Your task to perform on an android device: turn off improve location accuracy Image 0: 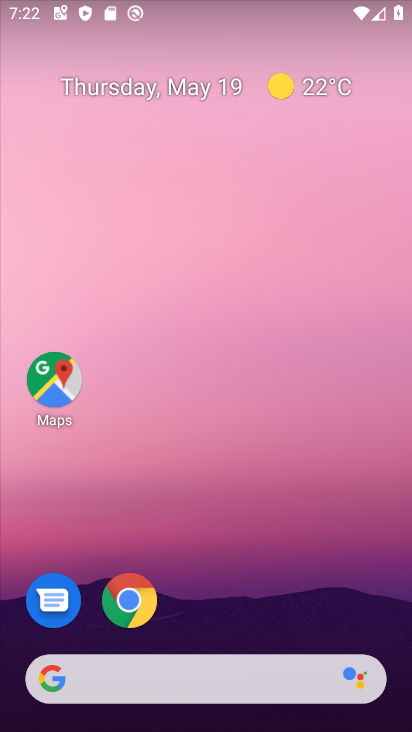
Step 0: drag from (321, 568) to (301, 214)
Your task to perform on an android device: turn off improve location accuracy Image 1: 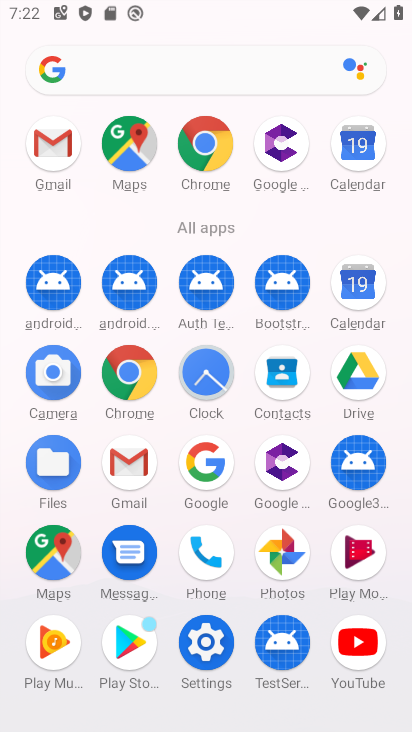
Step 1: click (172, 646)
Your task to perform on an android device: turn off improve location accuracy Image 2: 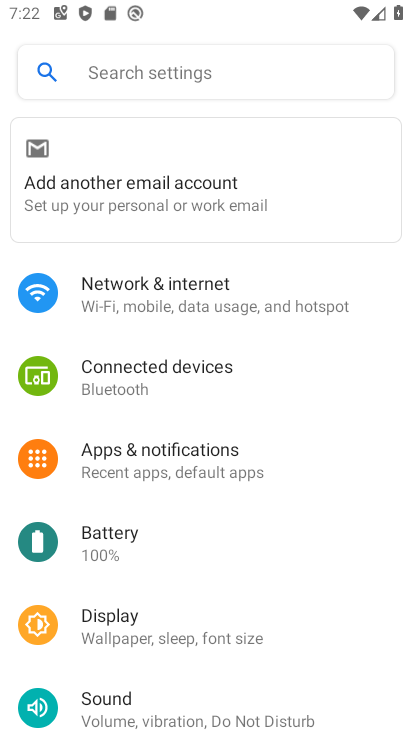
Step 2: drag from (269, 610) to (318, 303)
Your task to perform on an android device: turn off improve location accuracy Image 3: 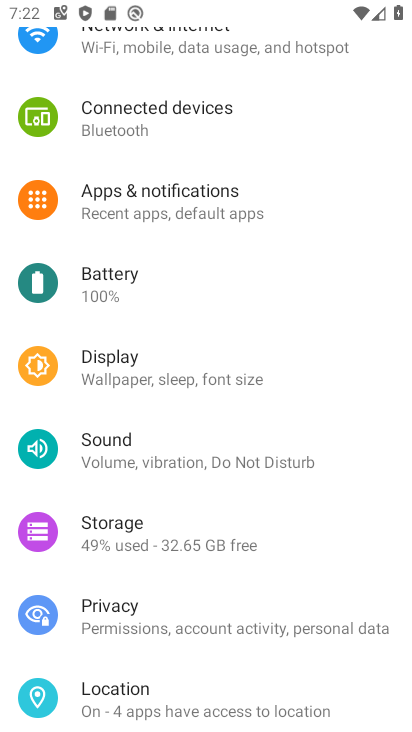
Step 3: drag from (329, 660) to (330, 346)
Your task to perform on an android device: turn off improve location accuracy Image 4: 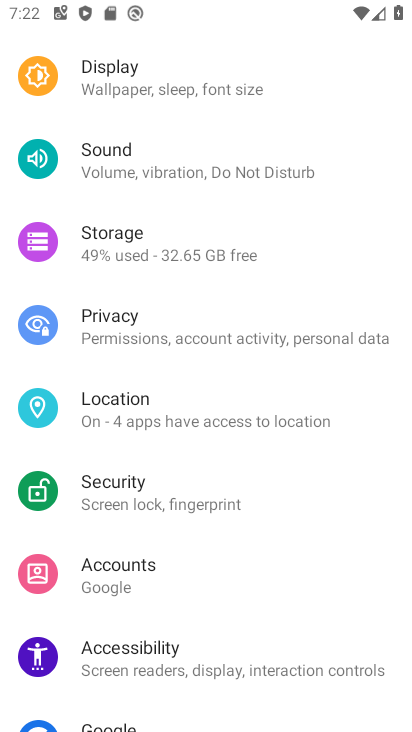
Step 4: drag from (268, 576) to (276, 416)
Your task to perform on an android device: turn off improve location accuracy Image 5: 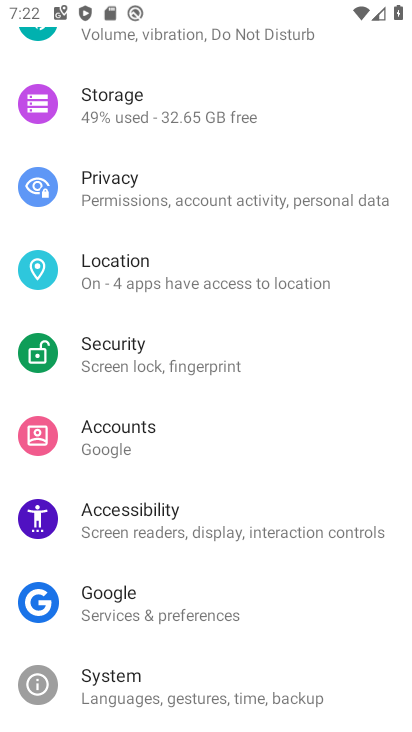
Step 5: click (154, 275)
Your task to perform on an android device: turn off improve location accuracy Image 6: 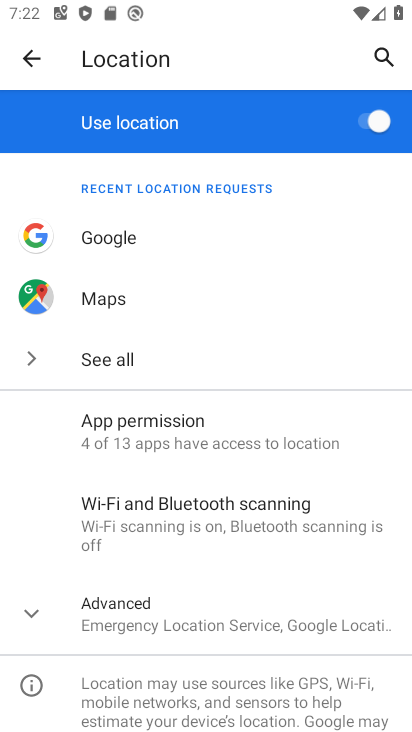
Step 6: drag from (221, 554) to (257, 300)
Your task to perform on an android device: turn off improve location accuracy Image 7: 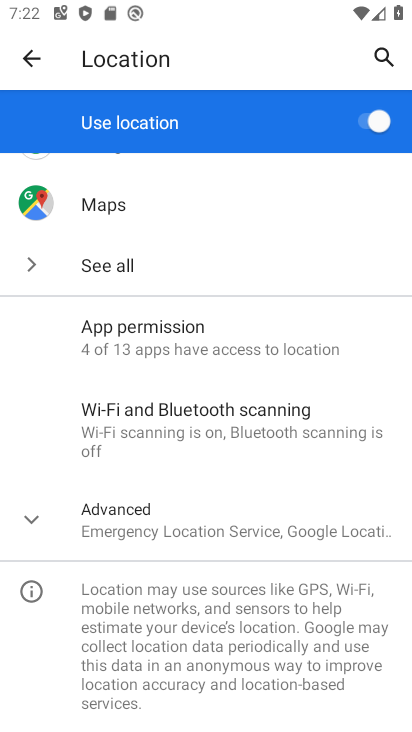
Step 7: click (165, 519)
Your task to perform on an android device: turn off improve location accuracy Image 8: 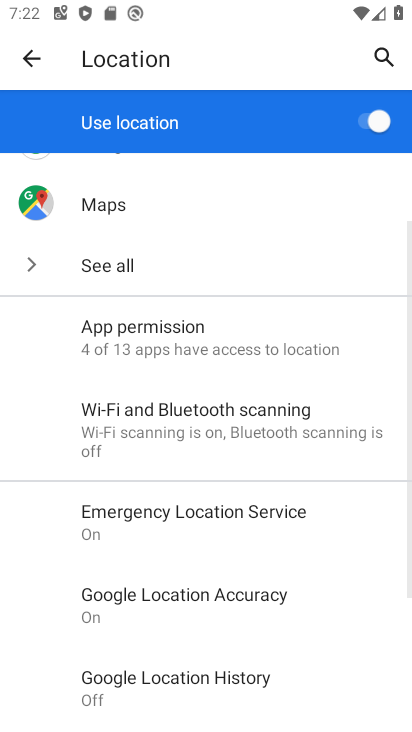
Step 8: drag from (307, 680) to (317, 429)
Your task to perform on an android device: turn off improve location accuracy Image 9: 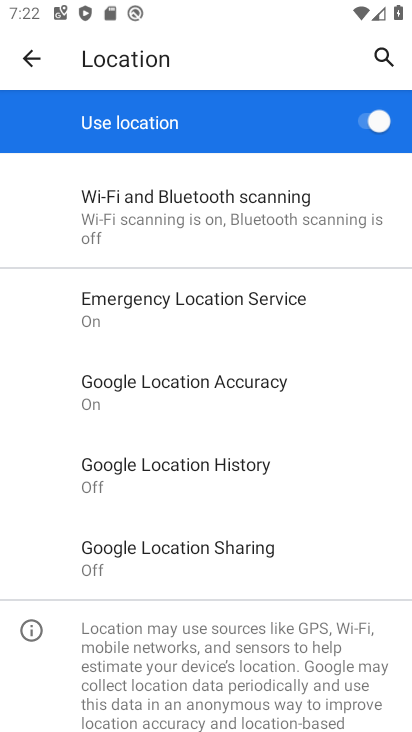
Step 9: click (244, 385)
Your task to perform on an android device: turn off improve location accuracy Image 10: 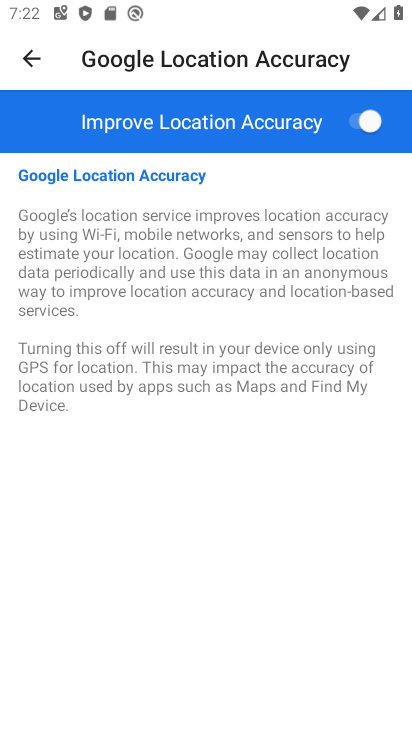
Step 10: click (356, 119)
Your task to perform on an android device: turn off improve location accuracy Image 11: 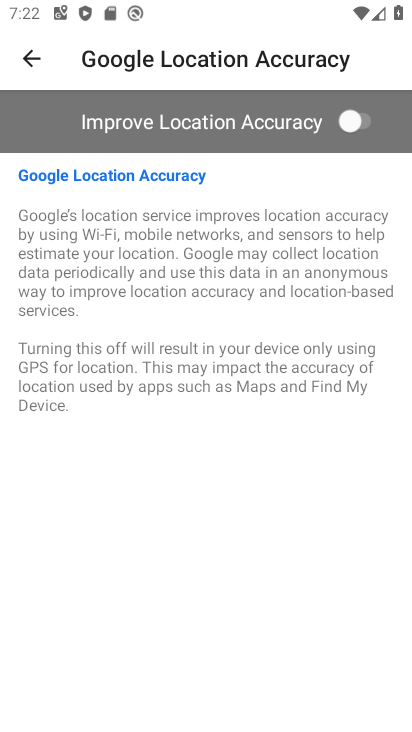
Step 11: task complete